Your task to perform on an android device: Open Android settings Image 0: 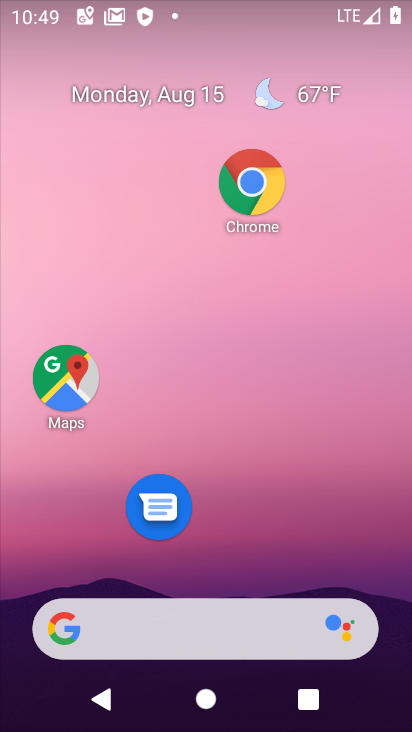
Step 0: drag from (308, 562) to (310, 5)
Your task to perform on an android device: Open Android settings Image 1: 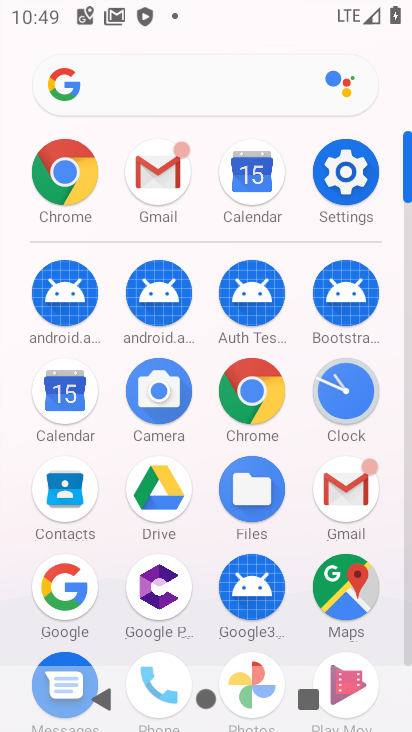
Step 1: click (368, 180)
Your task to perform on an android device: Open Android settings Image 2: 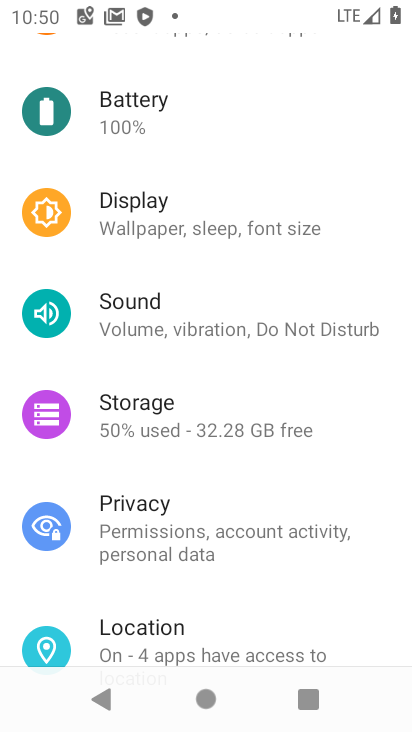
Step 2: task complete